Your task to perform on an android device: Show me the alarms in the clock app Image 0: 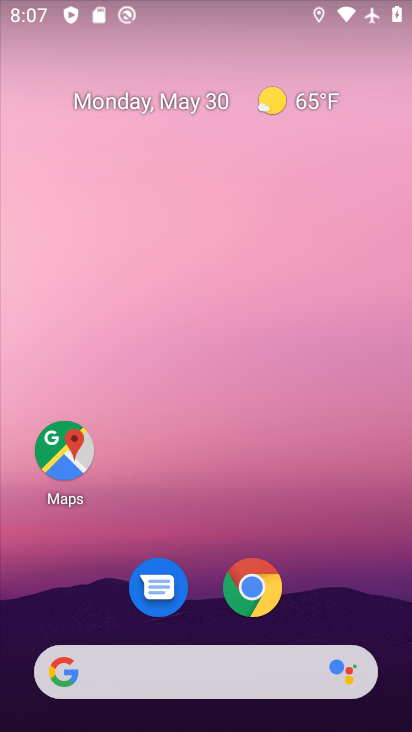
Step 0: press home button
Your task to perform on an android device: Show me the alarms in the clock app Image 1: 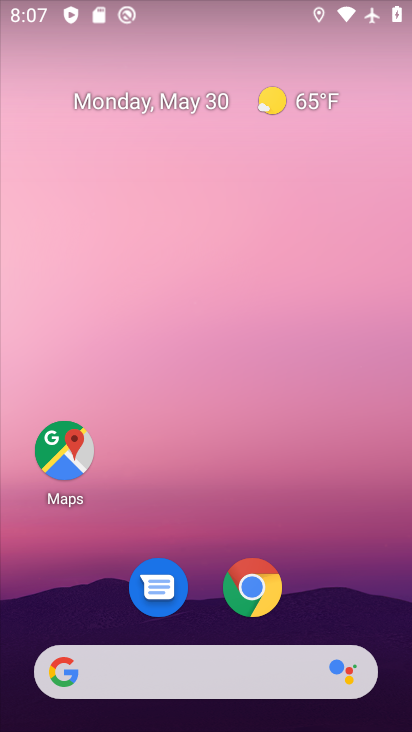
Step 1: drag from (171, 667) to (304, 81)
Your task to perform on an android device: Show me the alarms in the clock app Image 2: 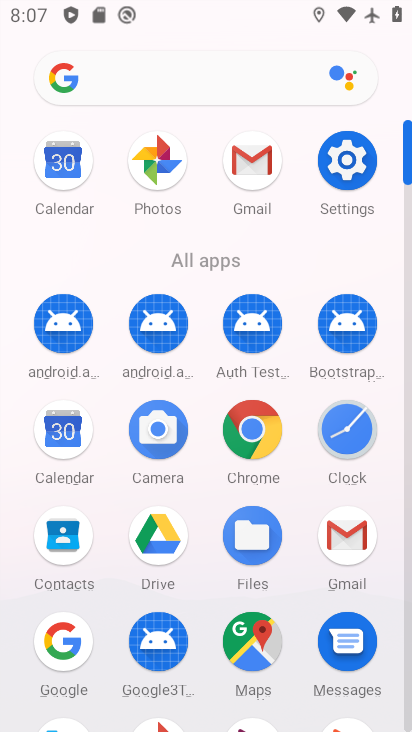
Step 2: click (342, 448)
Your task to perform on an android device: Show me the alarms in the clock app Image 3: 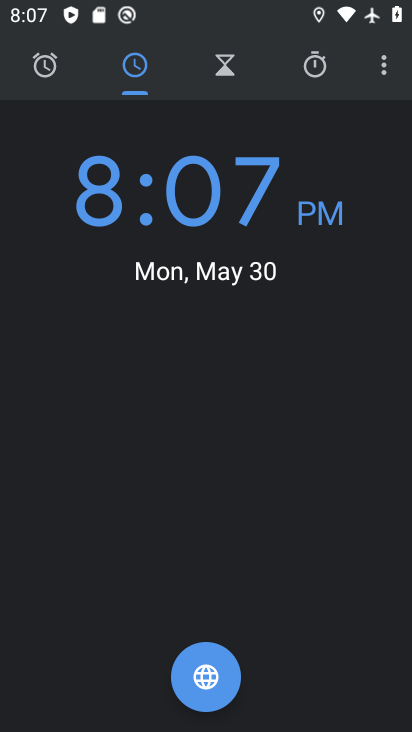
Step 3: click (51, 65)
Your task to perform on an android device: Show me the alarms in the clock app Image 4: 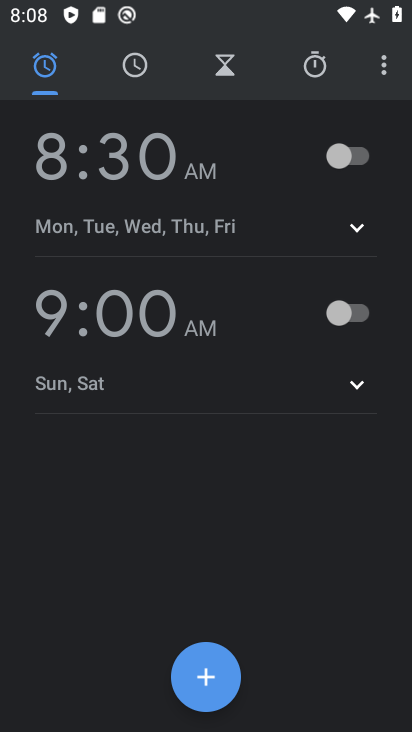
Step 4: task complete